Your task to perform on an android device: Open display settings Image 0: 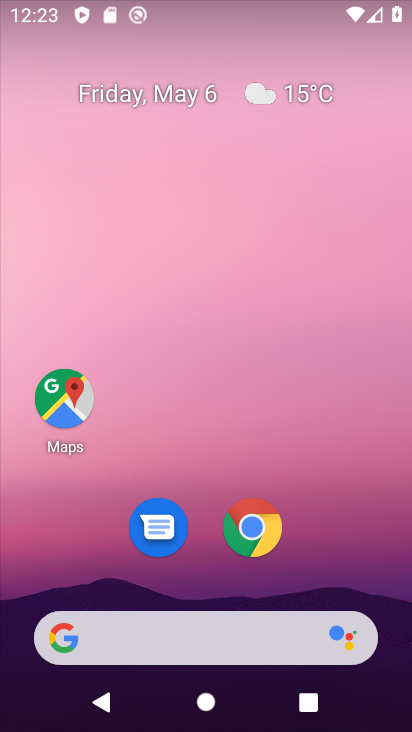
Step 0: drag from (332, 467) to (266, 2)
Your task to perform on an android device: Open display settings Image 1: 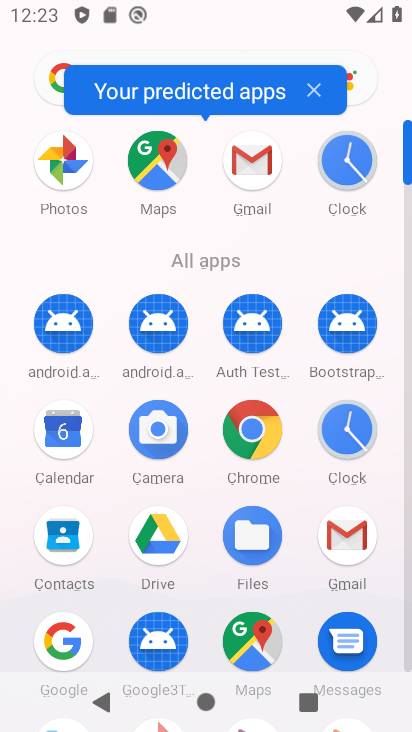
Step 1: drag from (213, 353) to (219, 202)
Your task to perform on an android device: Open display settings Image 2: 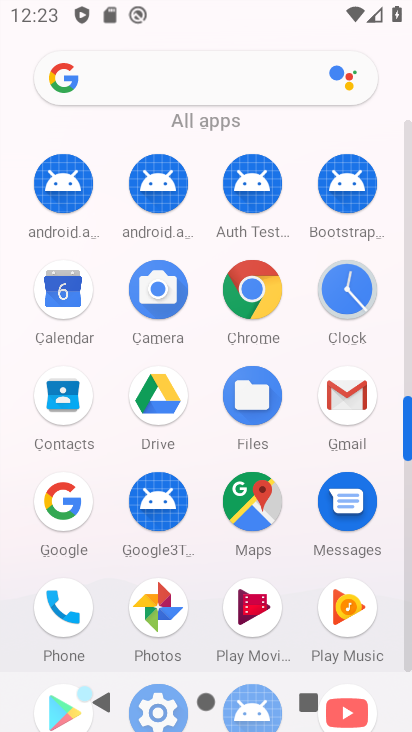
Step 2: drag from (184, 434) to (226, 236)
Your task to perform on an android device: Open display settings Image 3: 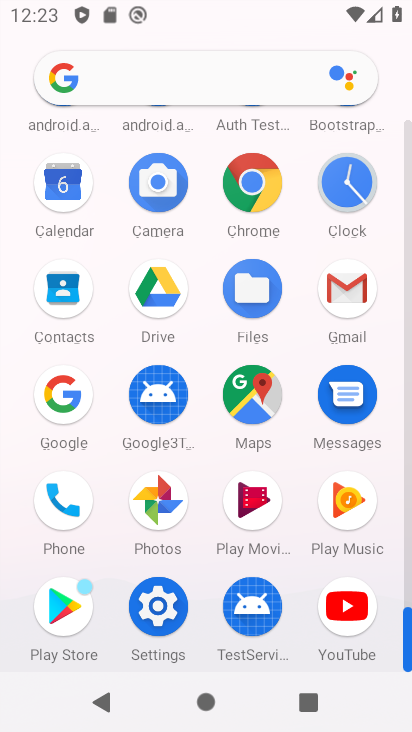
Step 3: click (157, 607)
Your task to perform on an android device: Open display settings Image 4: 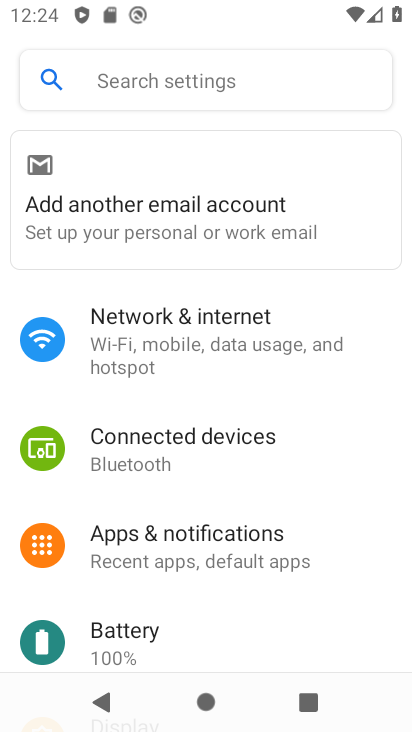
Step 4: drag from (174, 586) to (182, 403)
Your task to perform on an android device: Open display settings Image 5: 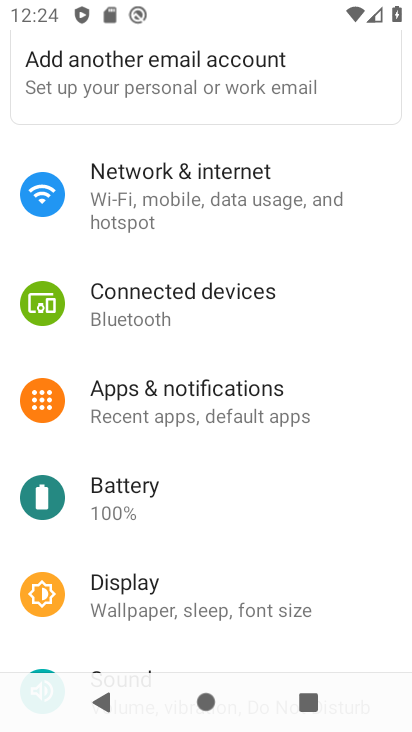
Step 5: click (173, 593)
Your task to perform on an android device: Open display settings Image 6: 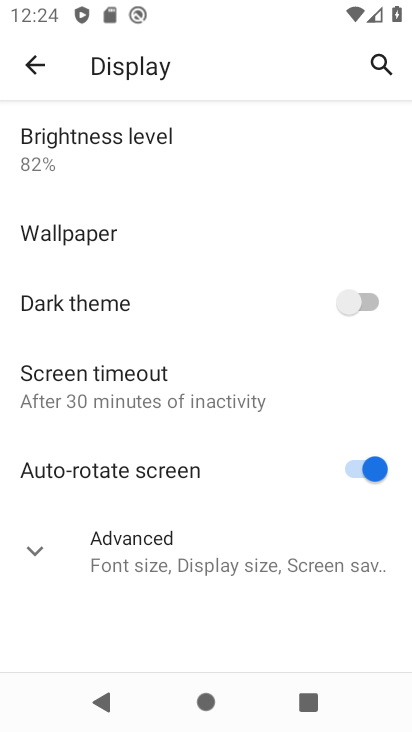
Step 6: task complete